Your task to perform on an android device: Open maps Image 0: 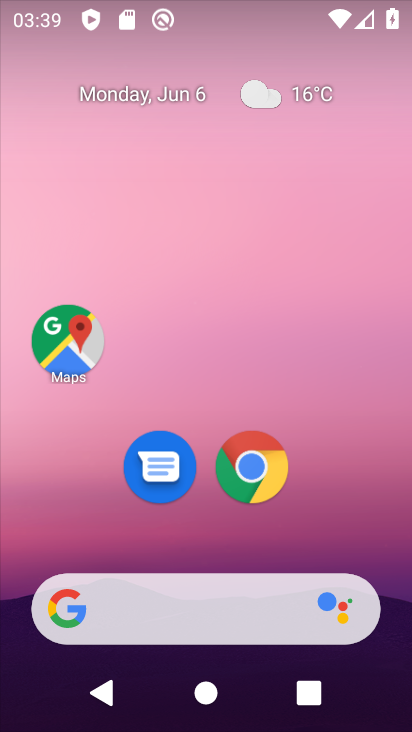
Step 0: press home button
Your task to perform on an android device: Open maps Image 1: 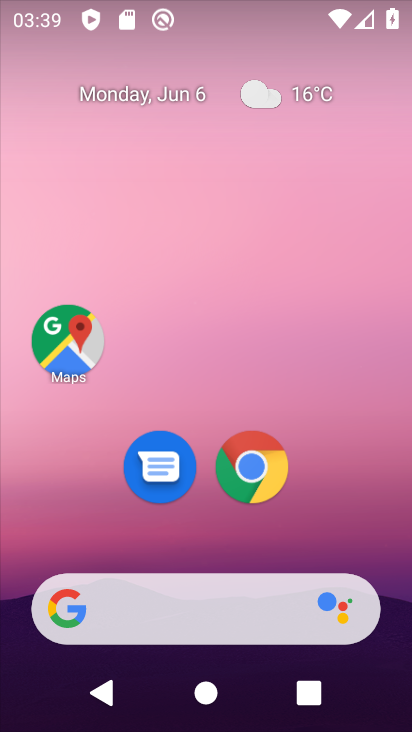
Step 1: click (65, 340)
Your task to perform on an android device: Open maps Image 2: 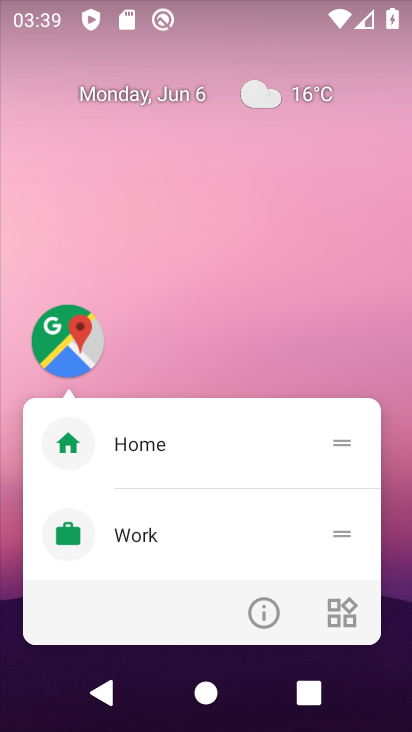
Step 2: click (65, 339)
Your task to perform on an android device: Open maps Image 3: 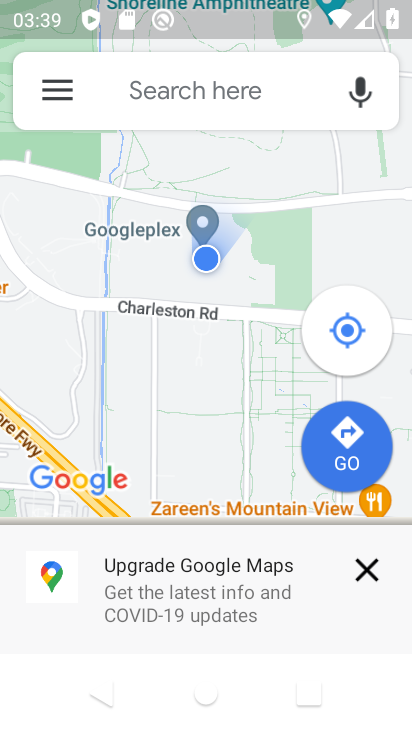
Step 3: click (356, 558)
Your task to perform on an android device: Open maps Image 4: 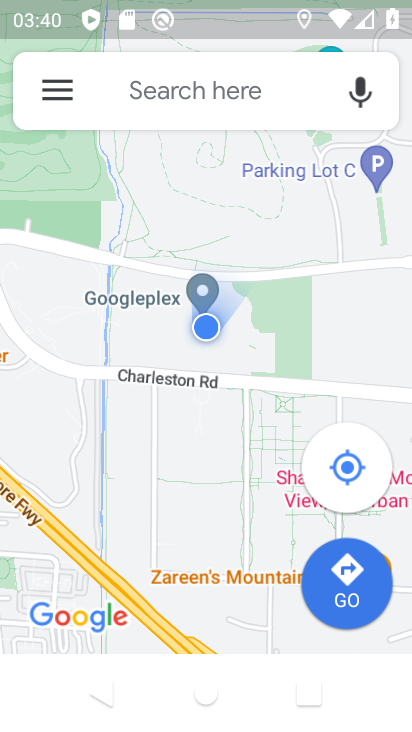
Step 4: task complete